Your task to perform on an android device: Open Yahoo.com Image 0: 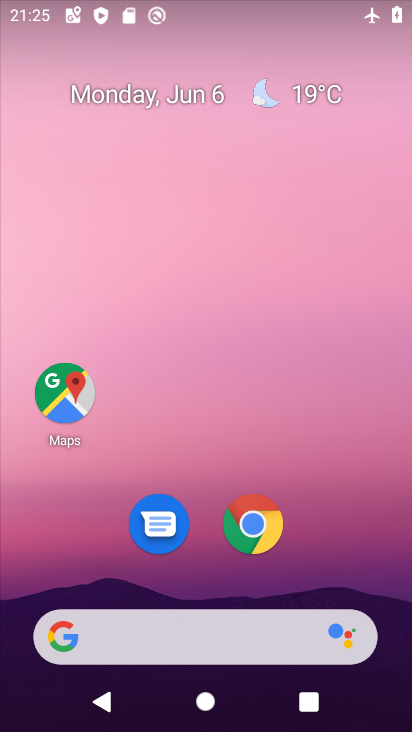
Step 0: click (235, 631)
Your task to perform on an android device: Open Yahoo.com Image 1: 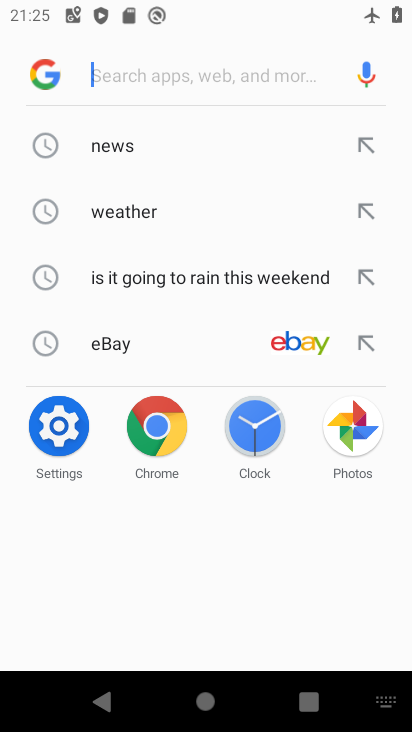
Step 1: type "yahoo.com"
Your task to perform on an android device: Open Yahoo.com Image 2: 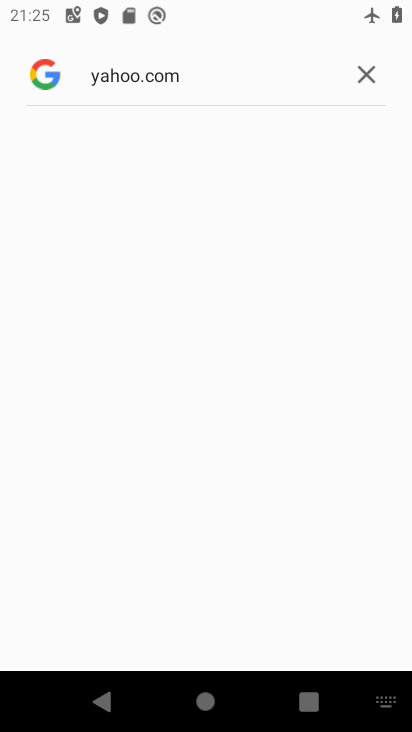
Step 2: task complete